Your task to perform on an android device: Clear the cart on bestbuy. Image 0: 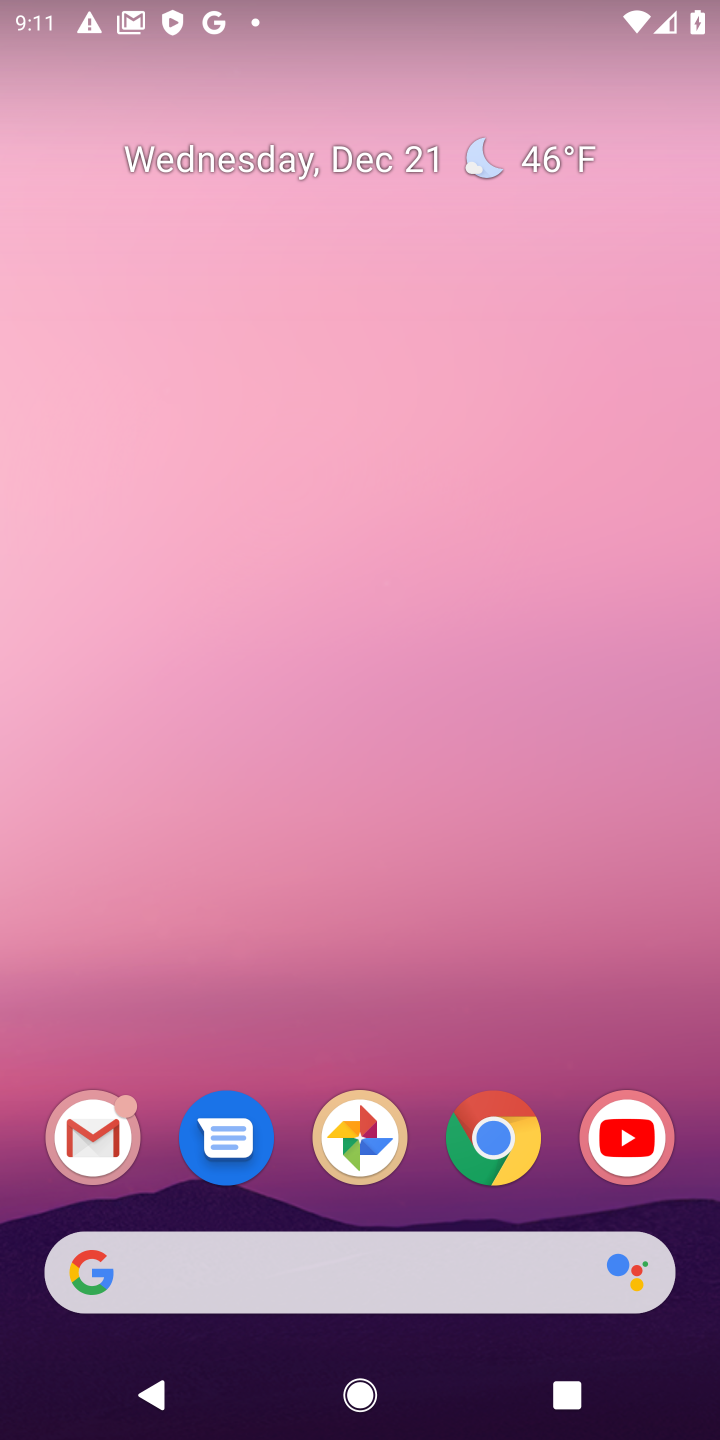
Step 0: click (501, 1146)
Your task to perform on an android device: Clear the cart on bestbuy. Image 1: 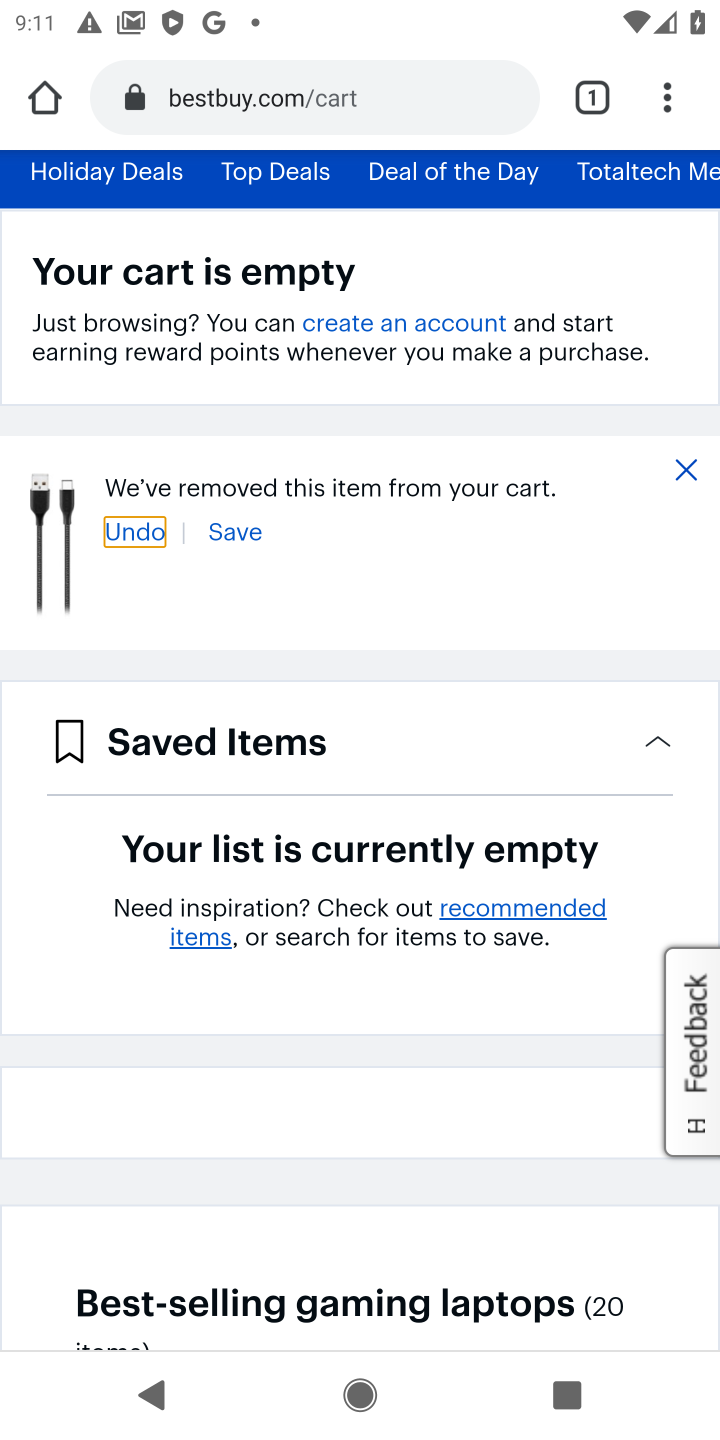
Step 1: task complete